Your task to perform on an android device: turn on airplane mode Image 0: 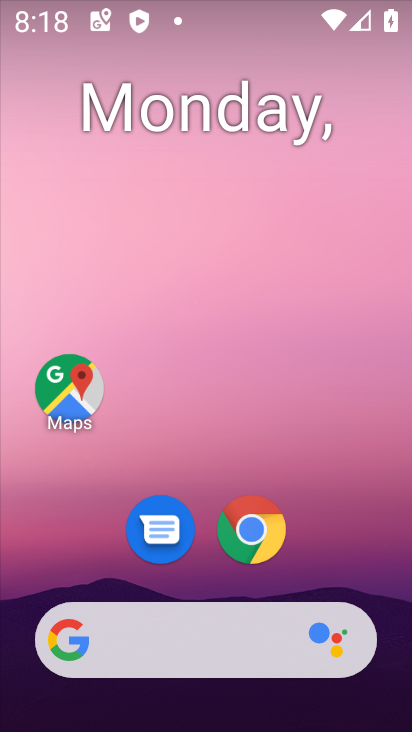
Step 0: drag from (205, 625) to (211, 30)
Your task to perform on an android device: turn on airplane mode Image 1: 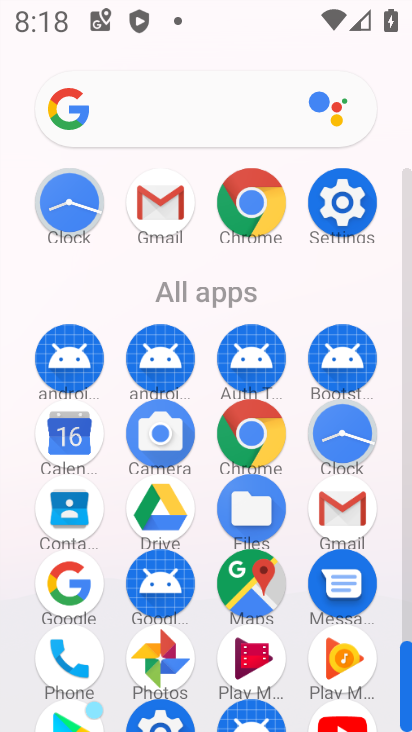
Step 1: click (351, 205)
Your task to perform on an android device: turn on airplane mode Image 2: 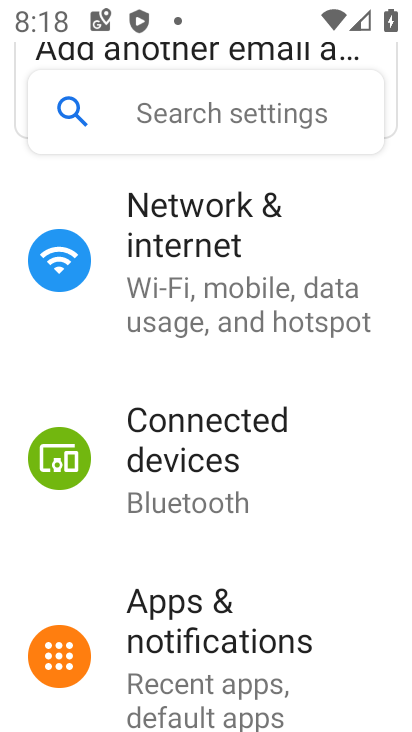
Step 2: click (206, 253)
Your task to perform on an android device: turn on airplane mode Image 3: 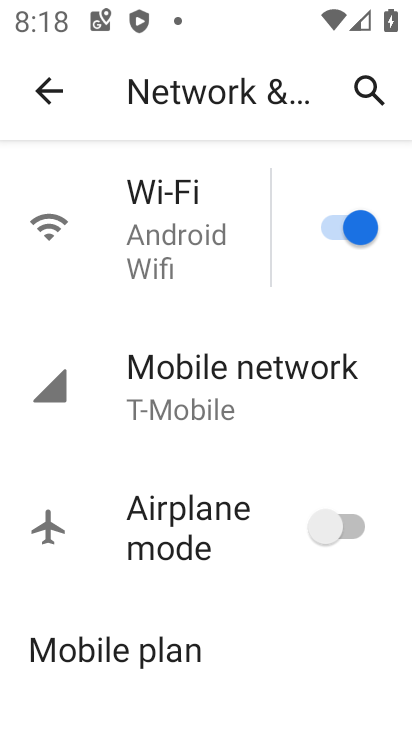
Step 3: click (360, 519)
Your task to perform on an android device: turn on airplane mode Image 4: 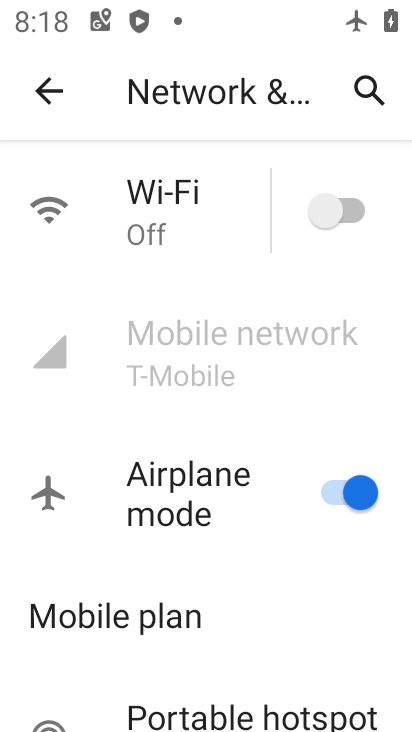
Step 4: click (382, 488)
Your task to perform on an android device: turn on airplane mode Image 5: 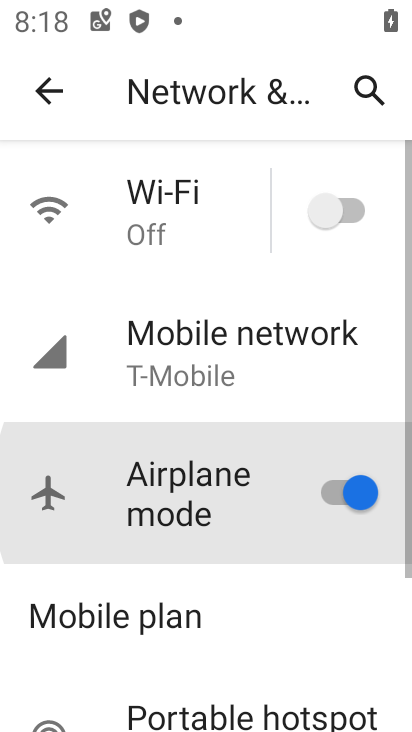
Step 5: click (382, 488)
Your task to perform on an android device: turn on airplane mode Image 6: 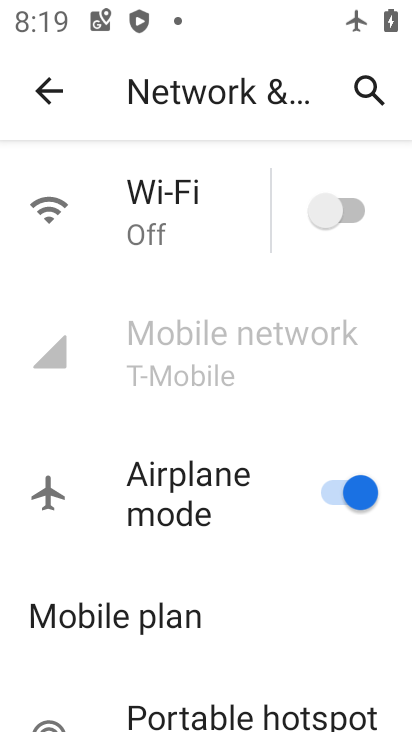
Step 6: task complete